Your task to perform on an android device: Go to Amazon Image 0: 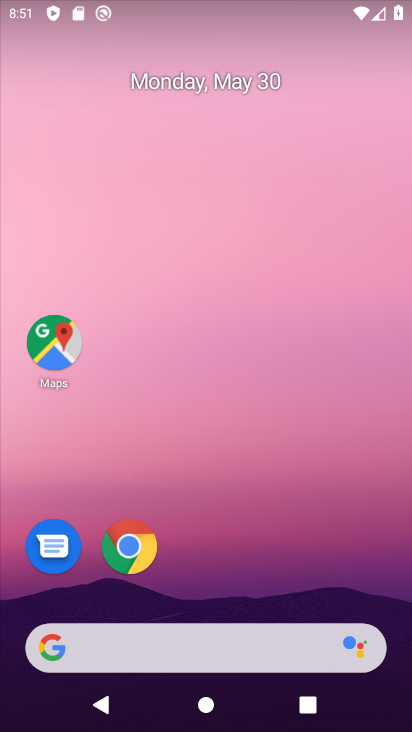
Step 0: click (130, 537)
Your task to perform on an android device: Go to Amazon Image 1: 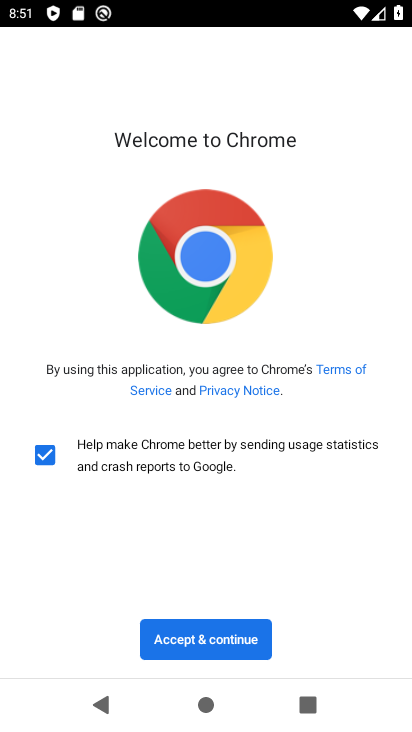
Step 1: click (180, 637)
Your task to perform on an android device: Go to Amazon Image 2: 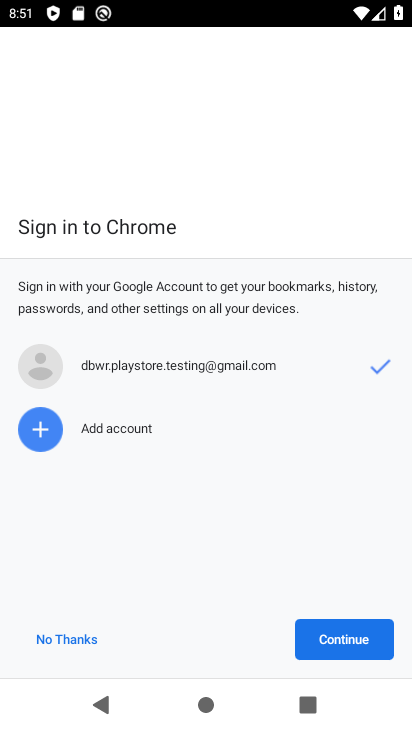
Step 2: click (358, 644)
Your task to perform on an android device: Go to Amazon Image 3: 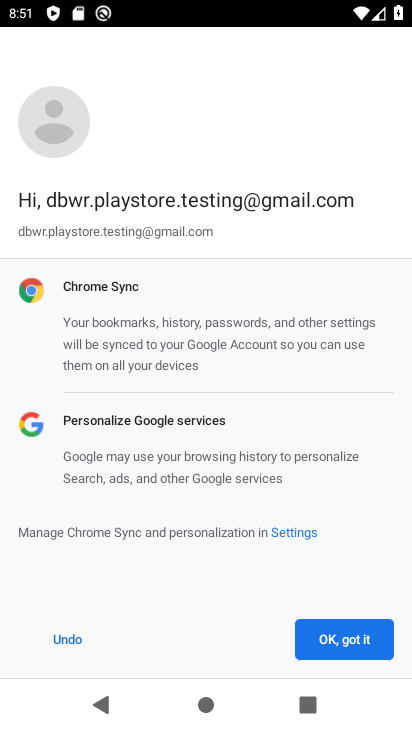
Step 3: click (361, 636)
Your task to perform on an android device: Go to Amazon Image 4: 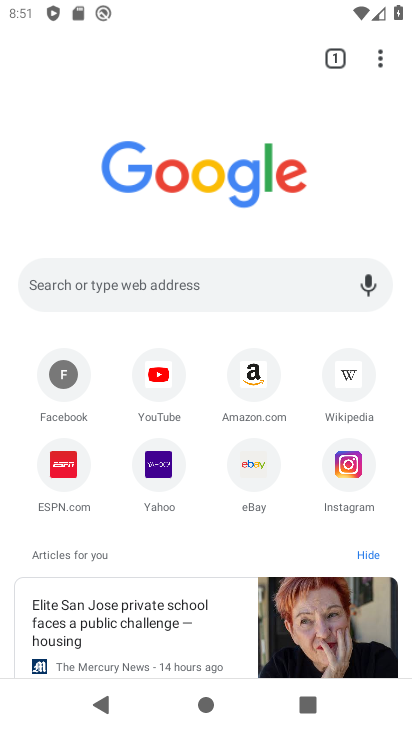
Step 4: click (252, 376)
Your task to perform on an android device: Go to Amazon Image 5: 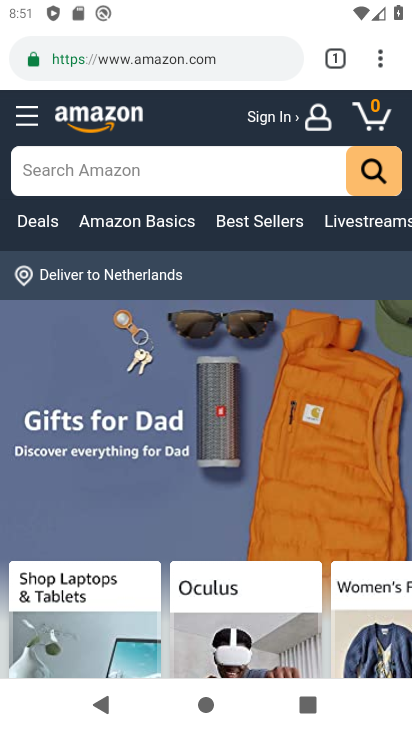
Step 5: task complete